Your task to perform on an android device: Open the stopwatch Image 0: 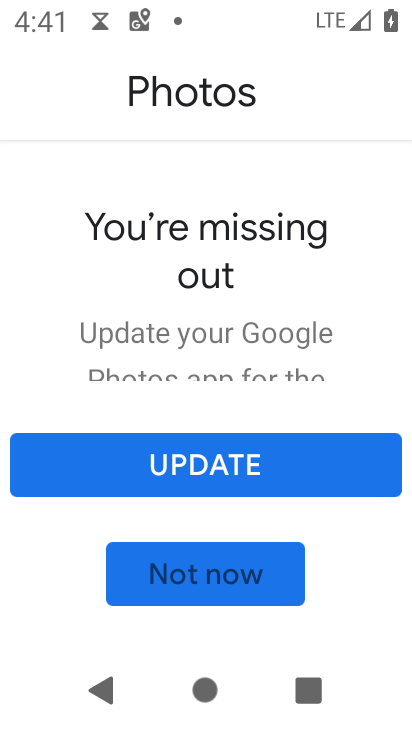
Step 0: press home button
Your task to perform on an android device: Open the stopwatch Image 1: 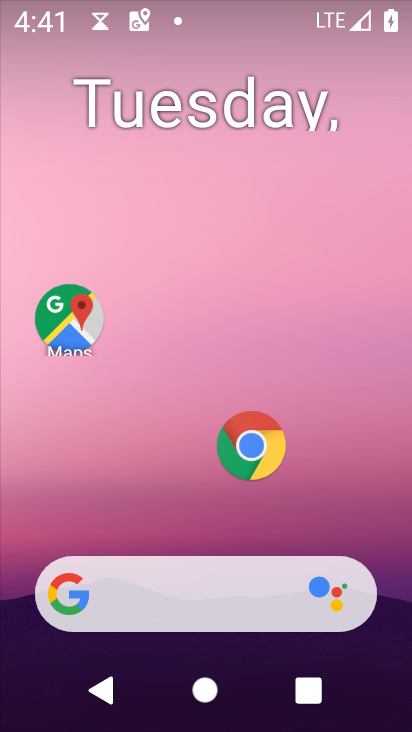
Step 1: drag from (168, 539) to (292, 18)
Your task to perform on an android device: Open the stopwatch Image 2: 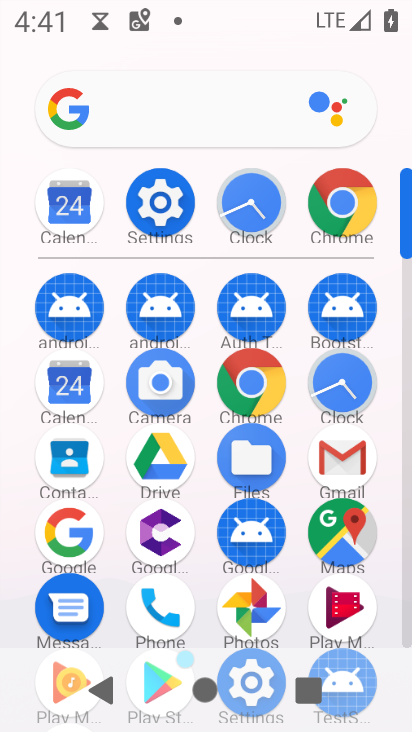
Step 2: click (259, 189)
Your task to perform on an android device: Open the stopwatch Image 3: 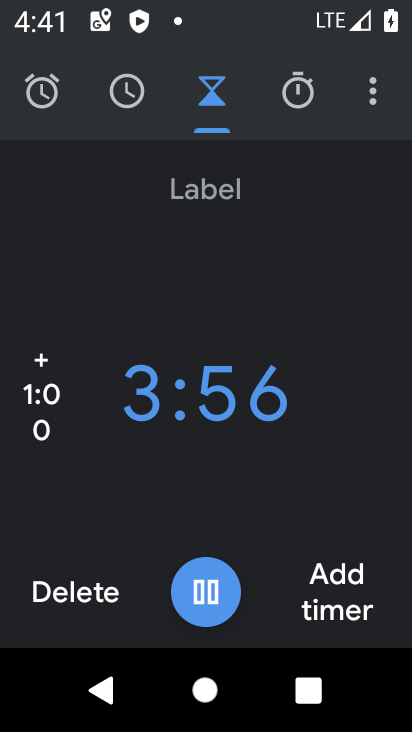
Step 3: click (64, 604)
Your task to perform on an android device: Open the stopwatch Image 4: 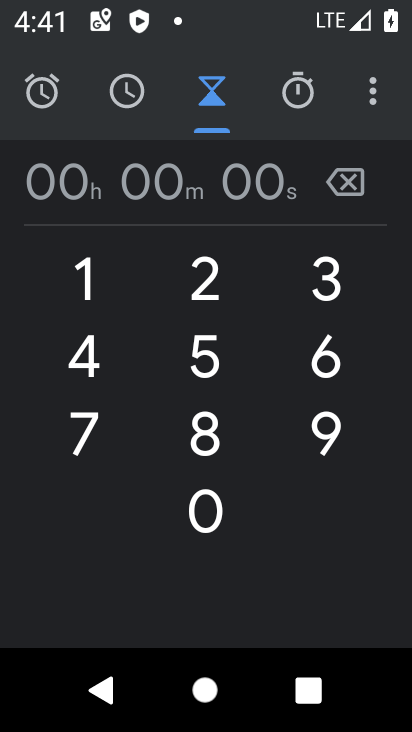
Step 4: click (307, 84)
Your task to perform on an android device: Open the stopwatch Image 5: 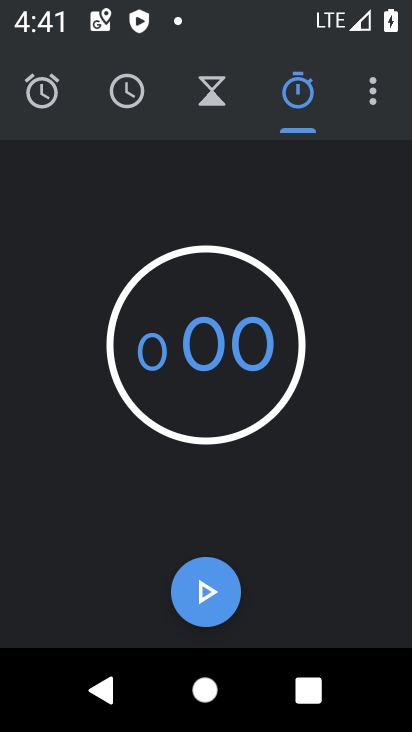
Step 5: click (202, 605)
Your task to perform on an android device: Open the stopwatch Image 6: 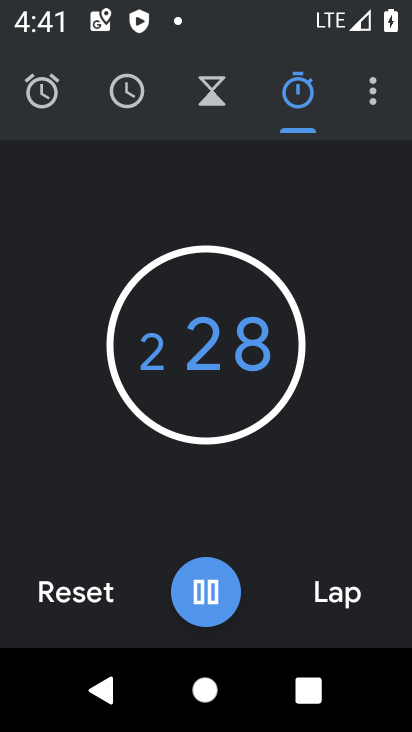
Step 6: task complete